Your task to perform on an android device: star an email in the gmail app Image 0: 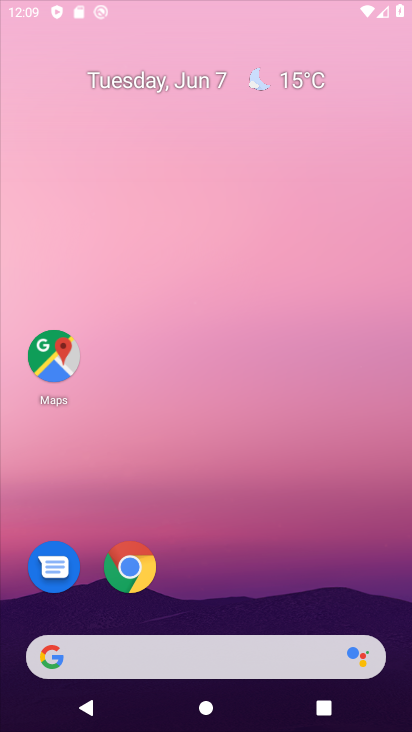
Step 0: drag from (354, 113) to (353, 59)
Your task to perform on an android device: star an email in the gmail app Image 1: 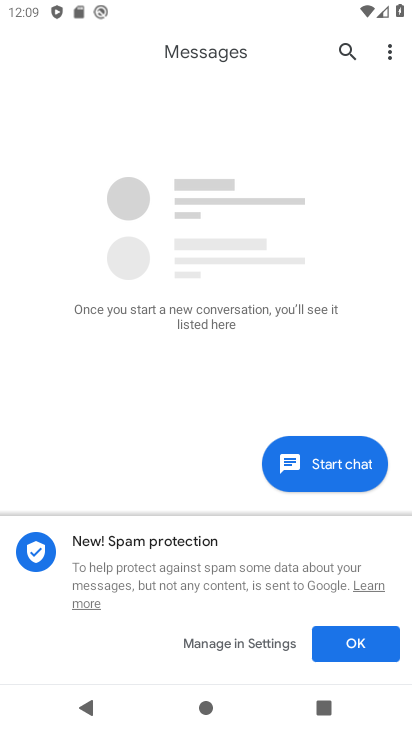
Step 1: press home button
Your task to perform on an android device: star an email in the gmail app Image 2: 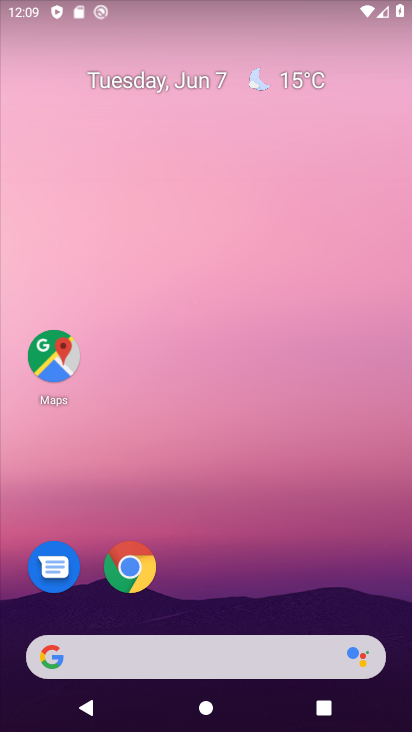
Step 2: drag from (319, 596) to (349, 138)
Your task to perform on an android device: star an email in the gmail app Image 3: 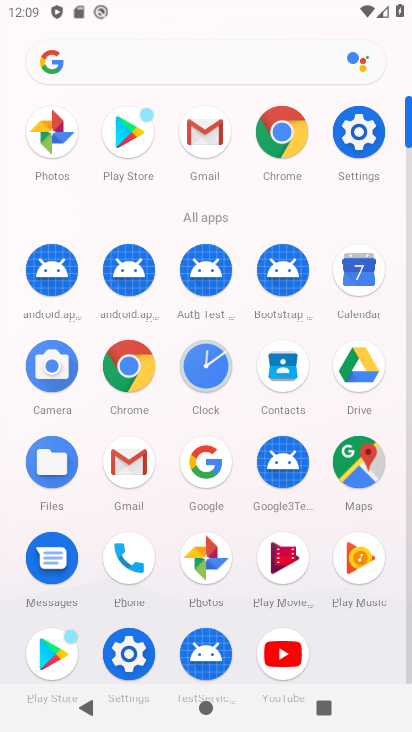
Step 3: click (147, 420)
Your task to perform on an android device: star an email in the gmail app Image 4: 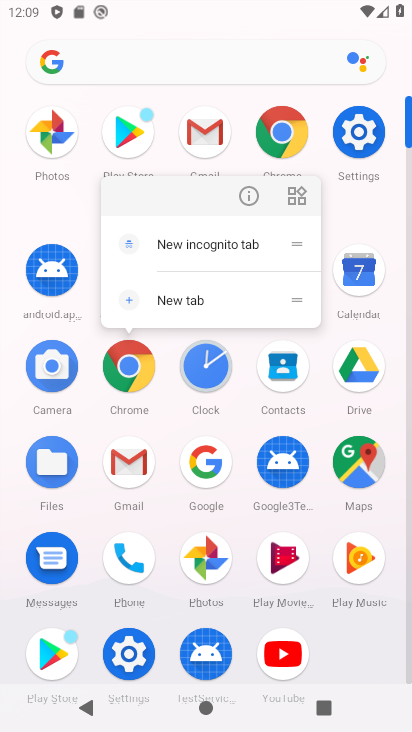
Step 4: click (126, 458)
Your task to perform on an android device: star an email in the gmail app Image 5: 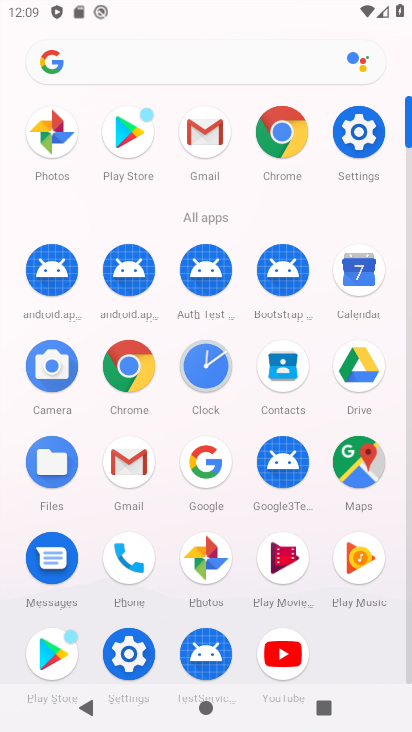
Step 5: click (127, 458)
Your task to perform on an android device: star an email in the gmail app Image 6: 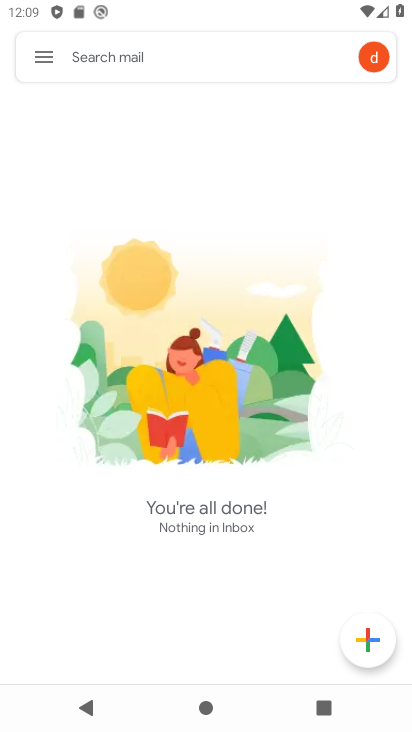
Step 6: click (48, 69)
Your task to perform on an android device: star an email in the gmail app Image 7: 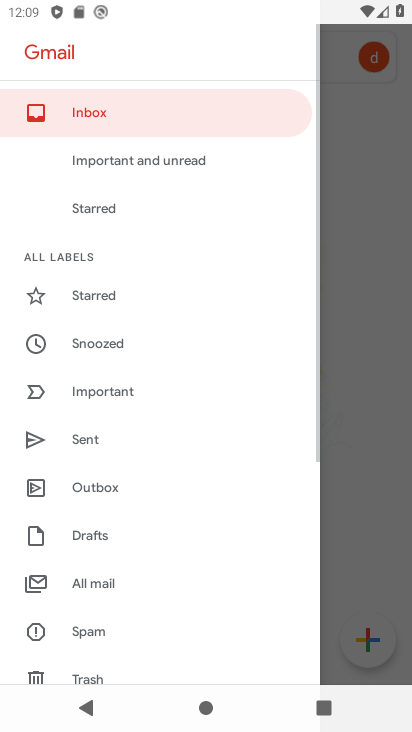
Step 7: click (89, 304)
Your task to perform on an android device: star an email in the gmail app Image 8: 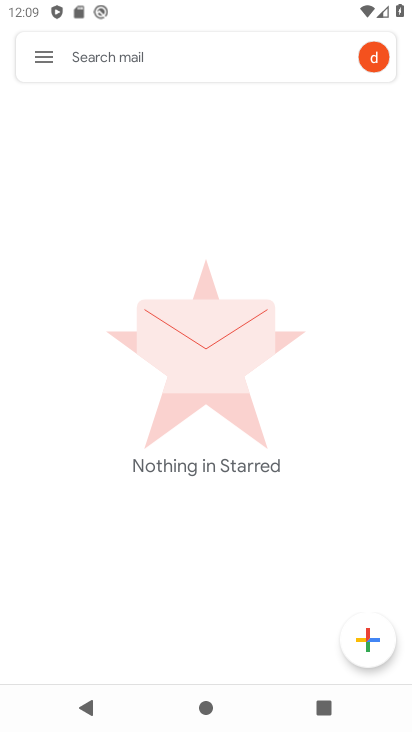
Step 8: task complete